Your task to perform on an android device: Open calendar and show me the third week of next month Image 0: 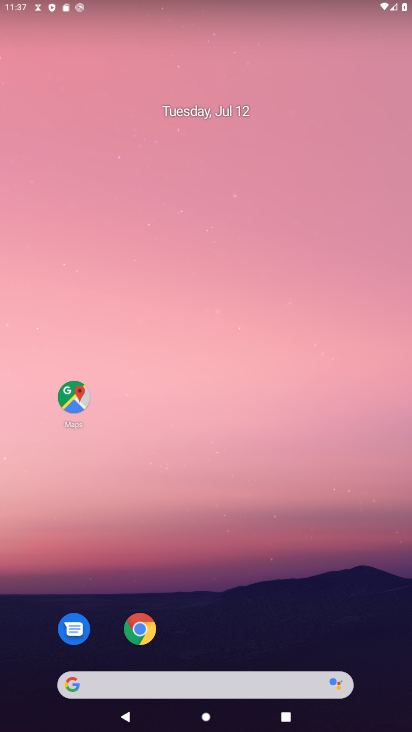
Step 0: drag from (228, 318) to (232, 0)
Your task to perform on an android device: Open calendar and show me the third week of next month Image 1: 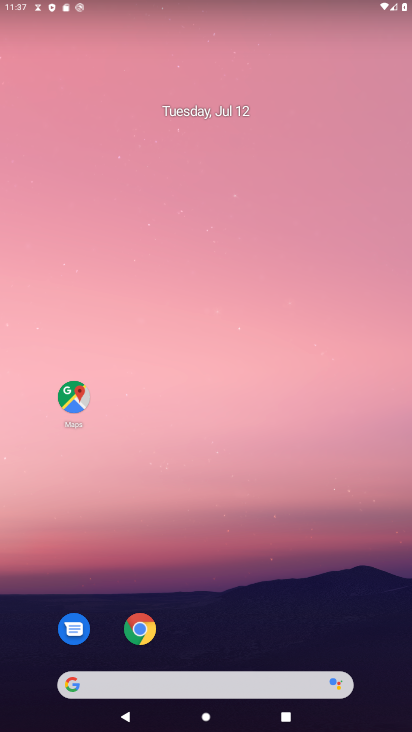
Step 1: drag from (276, 102) to (281, 27)
Your task to perform on an android device: Open calendar and show me the third week of next month Image 2: 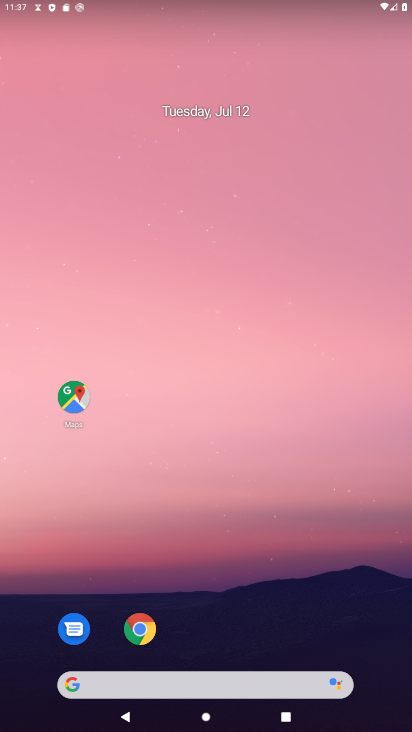
Step 2: drag from (322, 524) to (322, 0)
Your task to perform on an android device: Open calendar and show me the third week of next month Image 3: 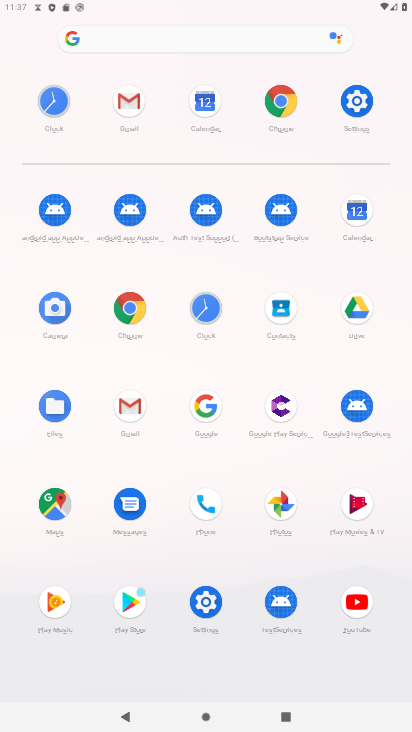
Step 3: click (358, 208)
Your task to perform on an android device: Open calendar and show me the third week of next month Image 4: 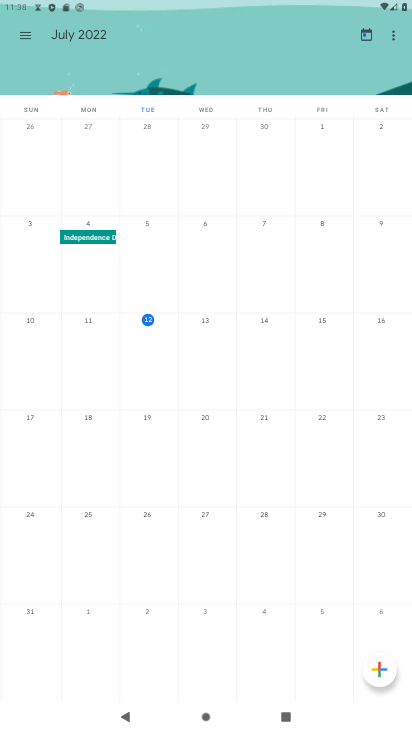
Step 4: drag from (367, 226) to (0, 230)
Your task to perform on an android device: Open calendar and show me the third week of next month Image 5: 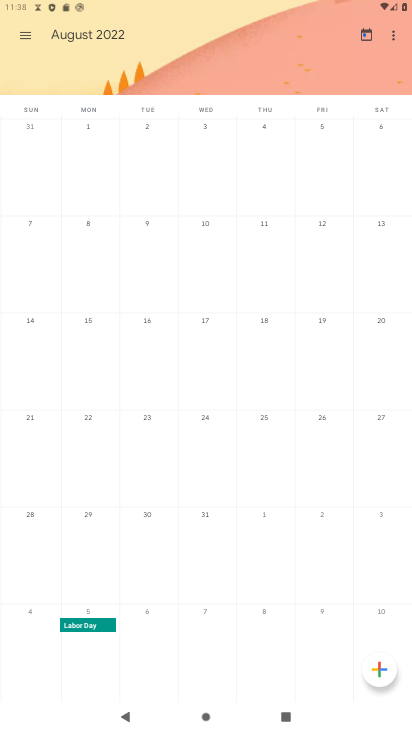
Step 5: click (44, 430)
Your task to perform on an android device: Open calendar and show me the third week of next month Image 6: 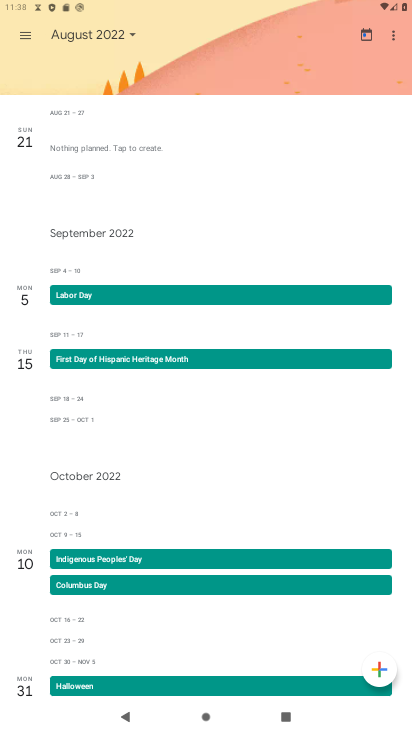
Step 6: task complete